Your task to perform on an android device: Play the last video I watched on Youtube Image 0: 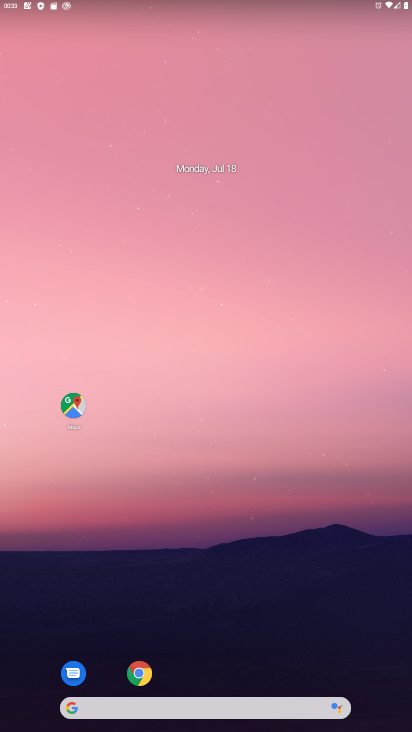
Step 0: drag from (281, 650) to (222, 140)
Your task to perform on an android device: Play the last video I watched on Youtube Image 1: 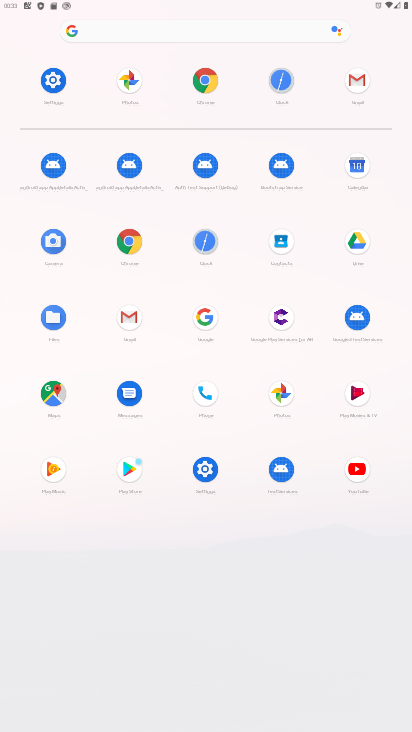
Step 1: click (372, 477)
Your task to perform on an android device: Play the last video I watched on Youtube Image 2: 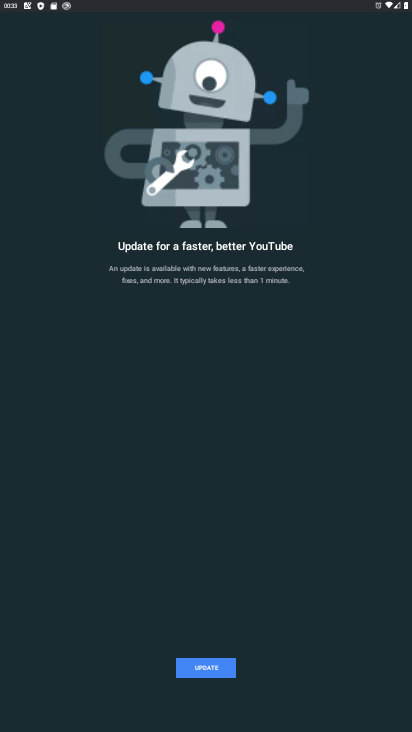
Step 2: click (204, 664)
Your task to perform on an android device: Play the last video I watched on Youtube Image 3: 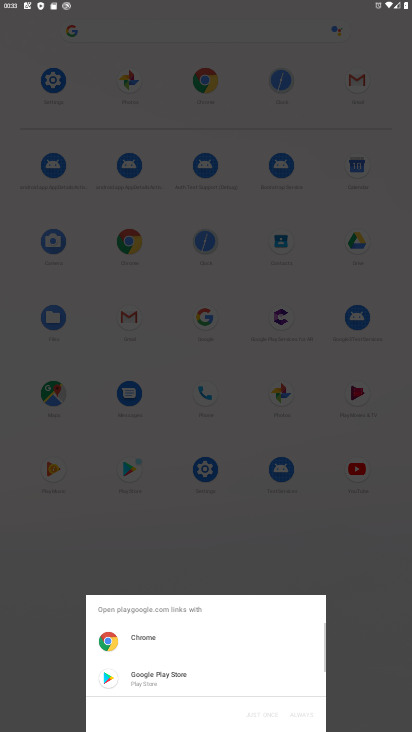
Step 3: click (164, 672)
Your task to perform on an android device: Play the last video I watched on Youtube Image 4: 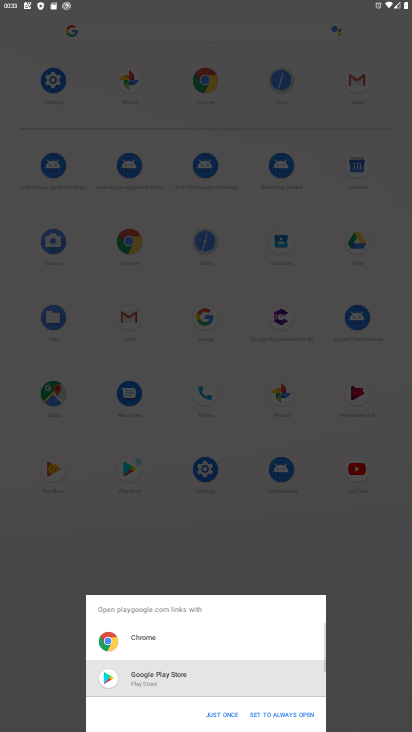
Step 4: click (208, 710)
Your task to perform on an android device: Play the last video I watched on Youtube Image 5: 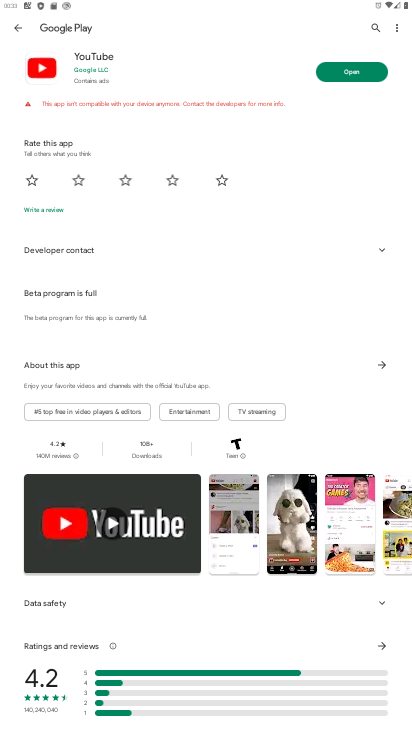
Step 5: click (337, 84)
Your task to perform on an android device: Play the last video I watched on Youtube Image 6: 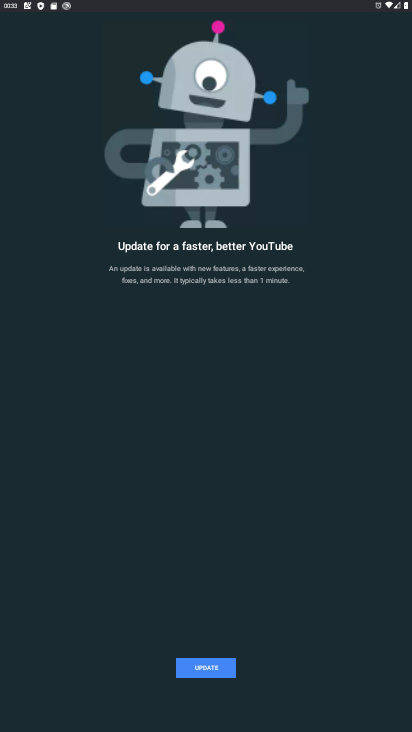
Step 6: task complete